Your task to perform on an android device: What's the weather? Image 0: 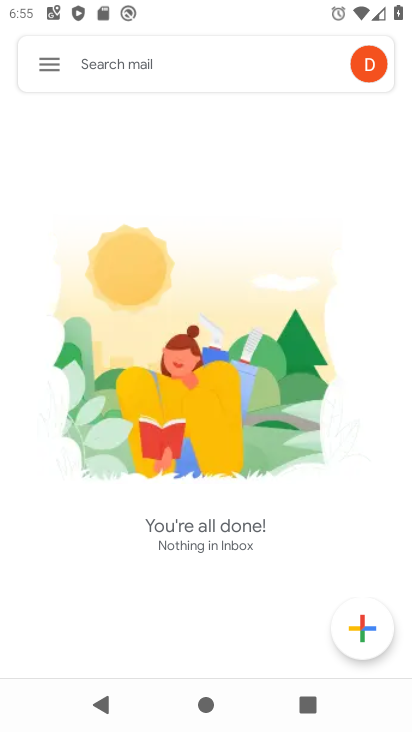
Step 0: press home button
Your task to perform on an android device: What's the weather? Image 1: 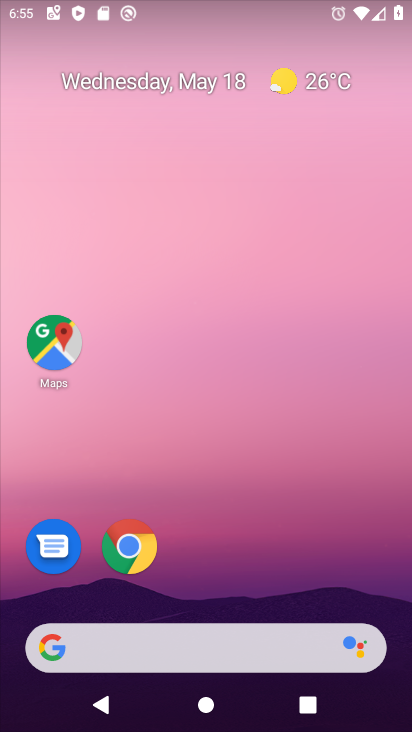
Step 1: drag from (402, 649) to (250, 102)
Your task to perform on an android device: What's the weather? Image 2: 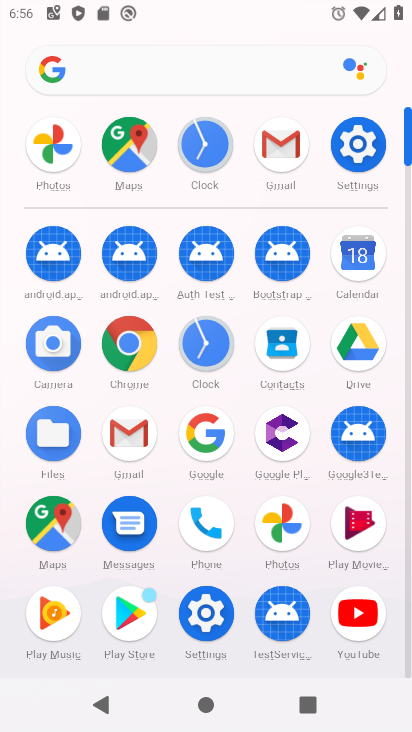
Step 2: click (189, 433)
Your task to perform on an android device: What's the weather? Image 3: 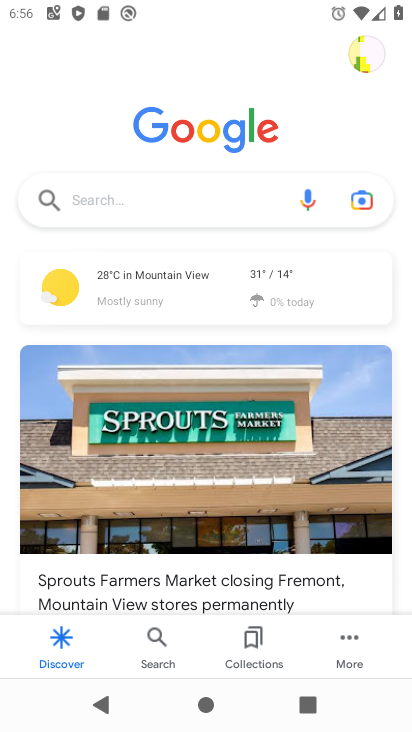
Step 3: click (132, 198)
Your task to perform on an android device: What's the weather? Image 4: 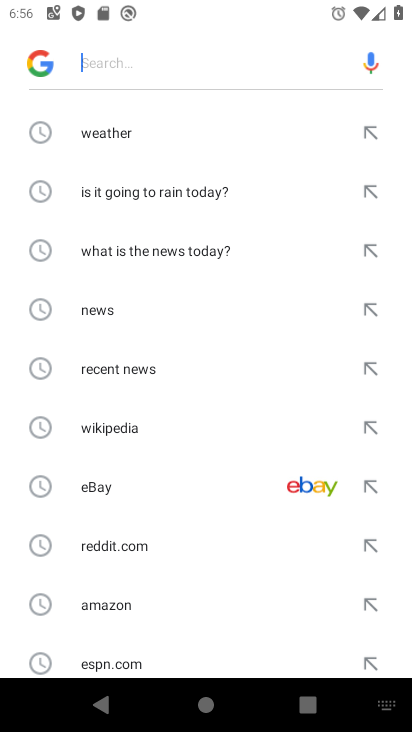
Step 4: click (159, 121)
Your task to perform on an android device: What's the weather? Image 5: 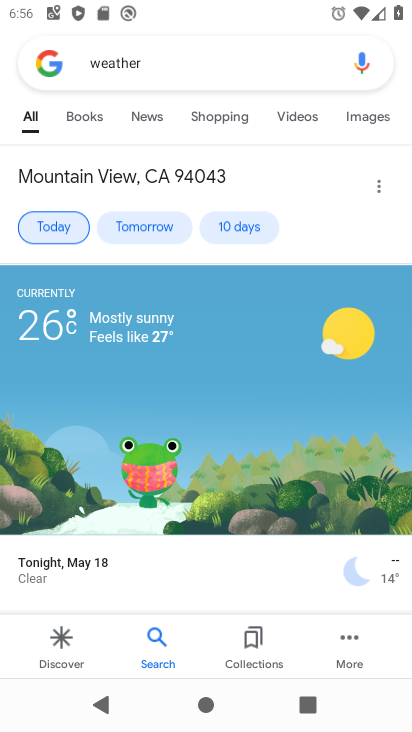
Step 5: task complete